Your task to perform on an android device: add a contact in the contacts app Image 0: 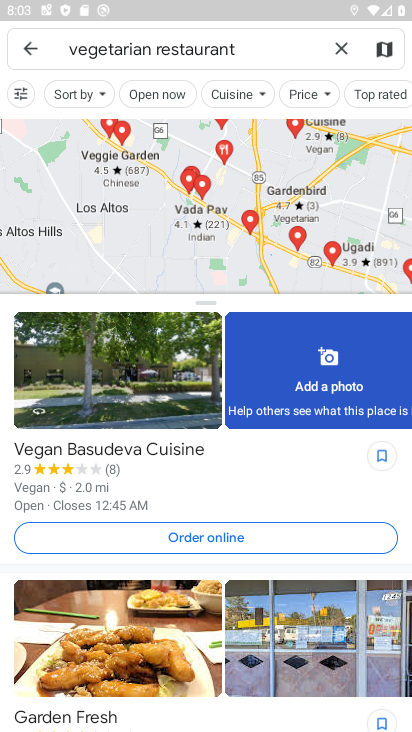
Step 0: press home button
Your task to perform on an android device: add a contact in the contacts app Image 1: 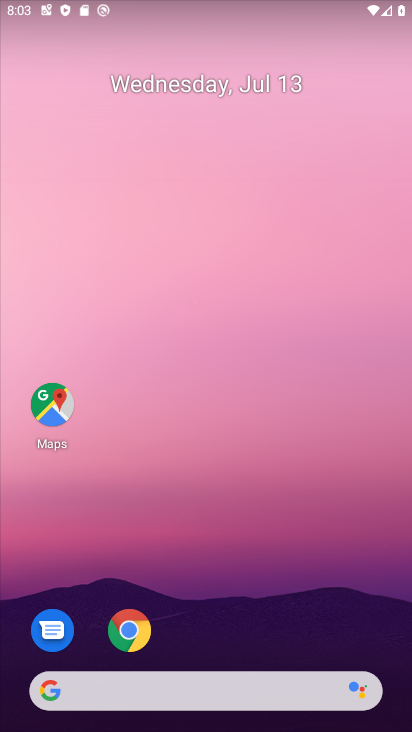
Step 1: drag from (345, 629) to (327, 119)
Your task to perform on an android device: add a contact in the contacts app Image 2: 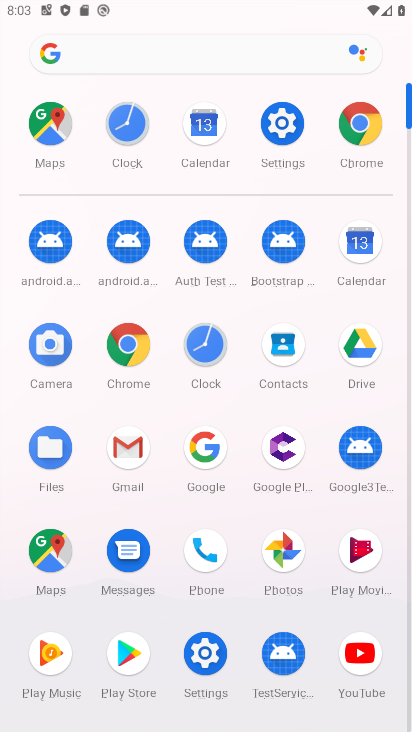
Step 2: click (284, 347)
Your task to perform on an android device: add a contact in the contacts app Image 3: 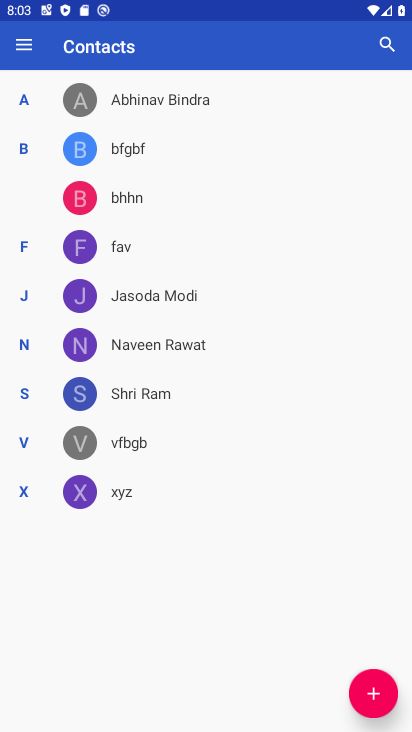
Step 3: click (369, 700)
Your task to perform on an android device: add a contact in the contacts app Image 4: 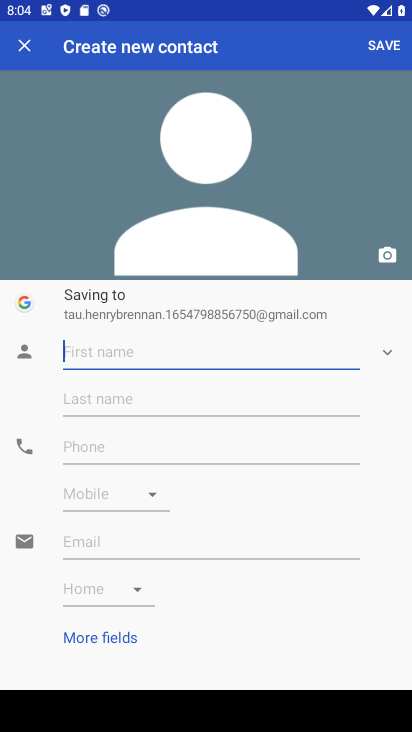
Step 4: type "fav"
Your task to perform on an android device: add a contact in the contacts app Image 5: 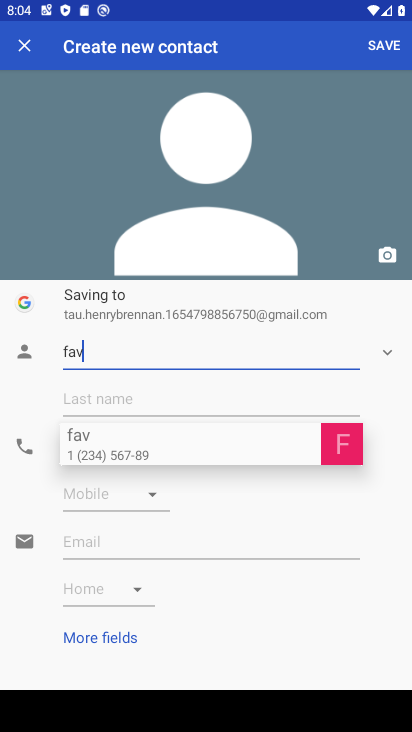
Step 5: click (237, 489)
Your task to perform on an android device: add a contact in the contacts app Image 6: 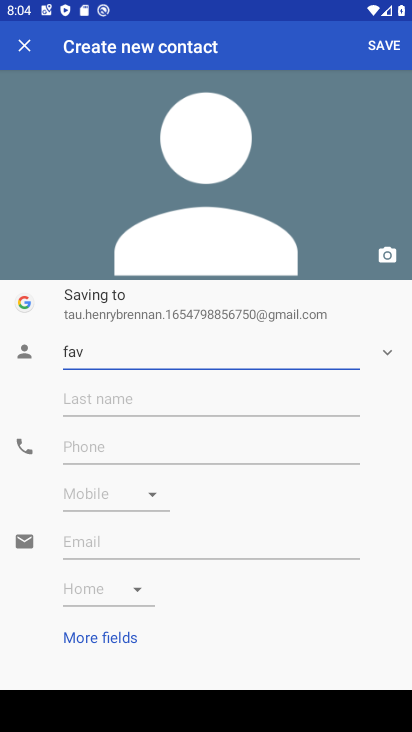
Step 6: click (248, 456)
Your task to perform on an android device: add a contact in the contacts app Image 7: 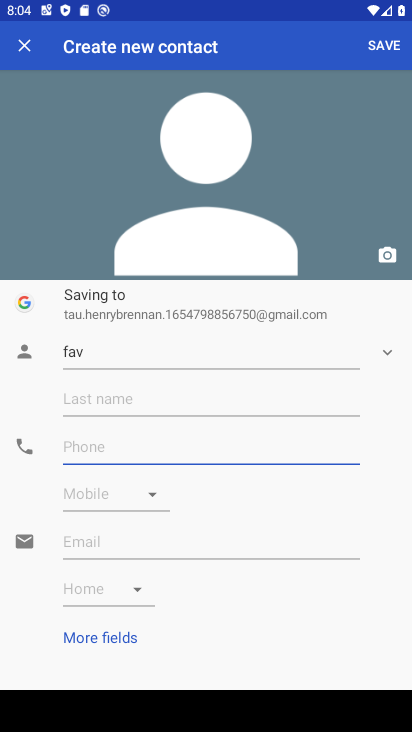
Step 7: type "123456787899"
Your task to perform on an android device: add a contact in the contacts app Image 8: 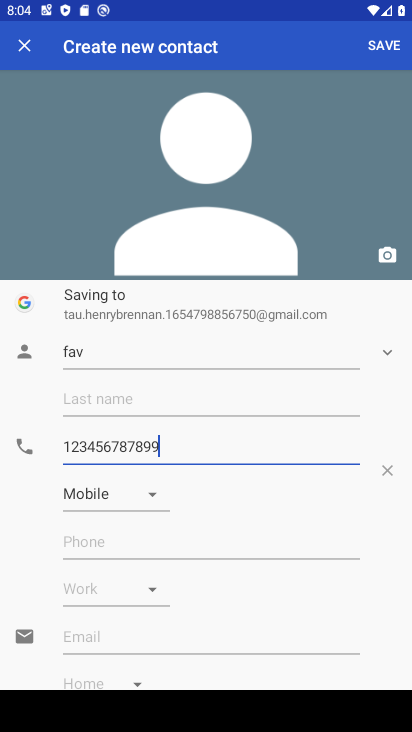
Step 8: click (381, 46)
Your task to perform on an android device: add a contact in the contacts app Image 9: 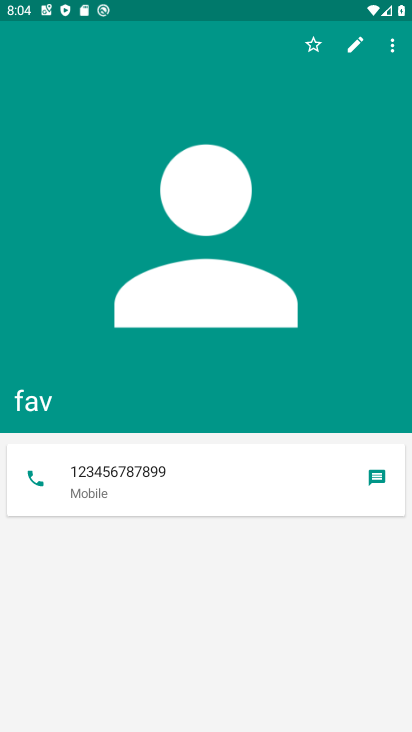
Step 9: task complete